Your task to perform on an android device: turn on the 12-hour format for clock Image 0: 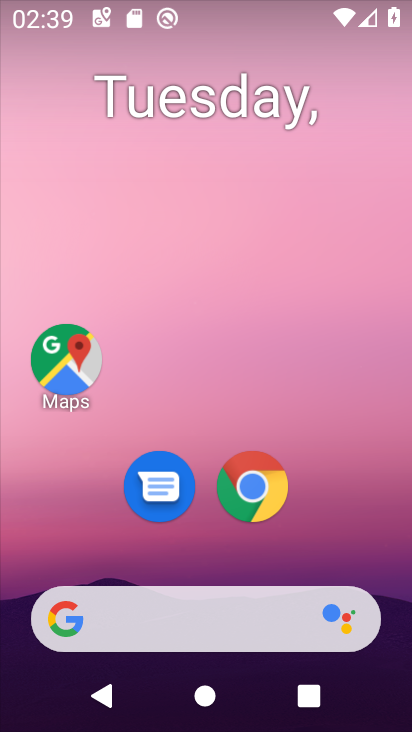
Step 0: drag from (215, 557) to (231, 33)
Your task to perform on an android device: turn on the 12-hour format for clock Image 1: 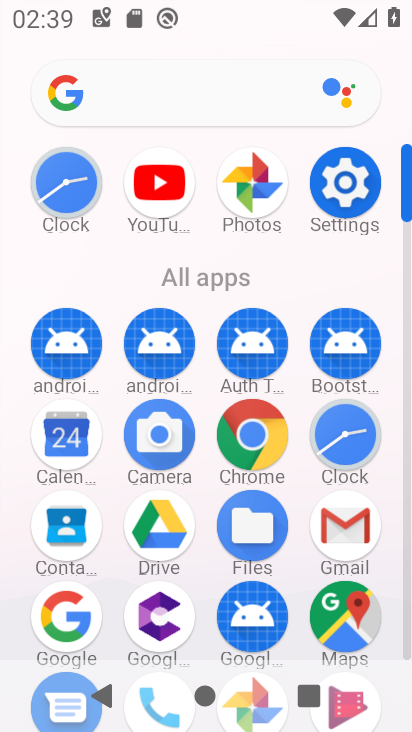
Step 1: click (343, 427)
Your task to perform on an android device: turn on the 12-hour format for clock Image 2: 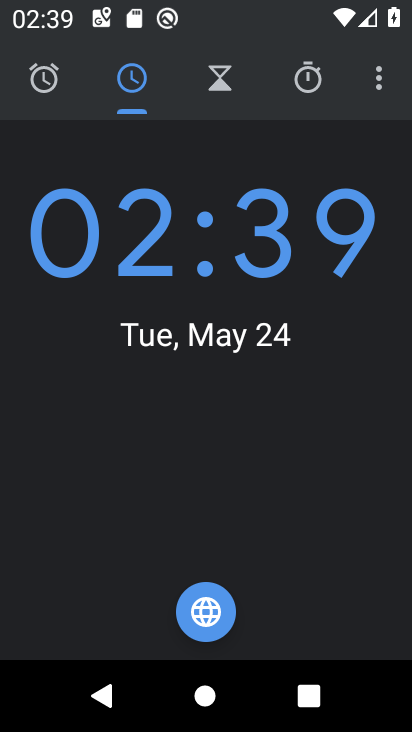
Step 2: click (380, 72)
Your task to perform on an android device: turn on the 12-hour format for clock Image 3: 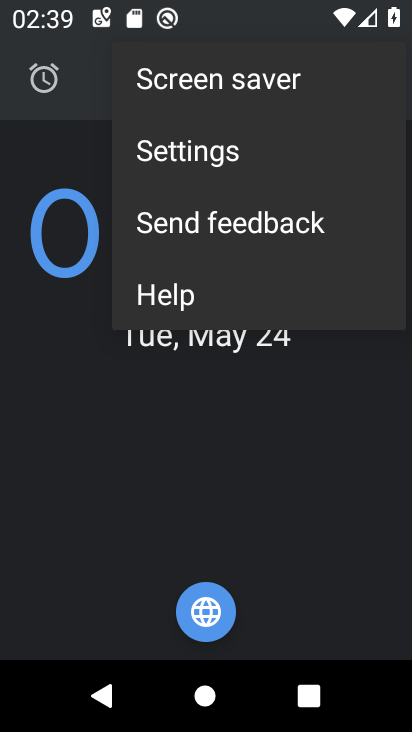
Step 3: click (256, 147)
Your task to perform on an android device: turn on the 12-hour format for clock Image 4: 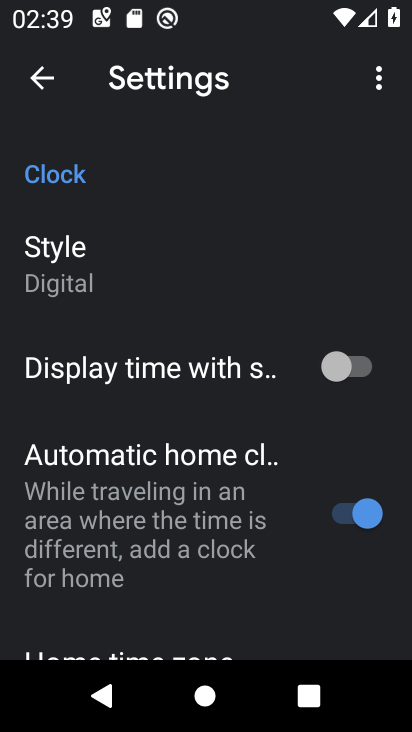
Step 4: drag from (214, 621) to (246, 117)
Your task to perform on an android device: turn on the 12-hour format for clock Image 5: 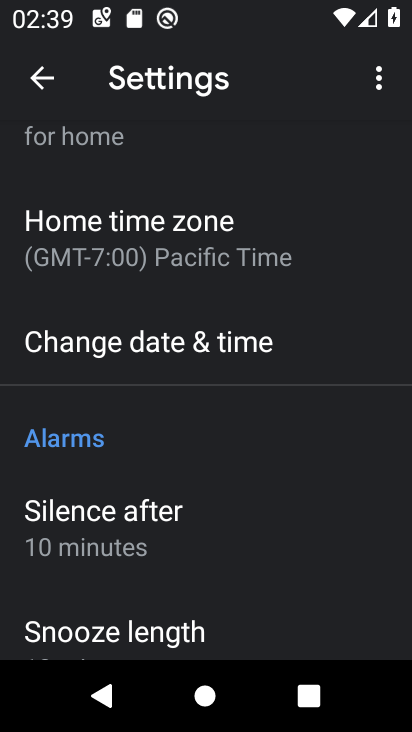
Step 5: click (250, 355)
Your task to perform on an android device: turn on the 12-hour format for clock Image 6: 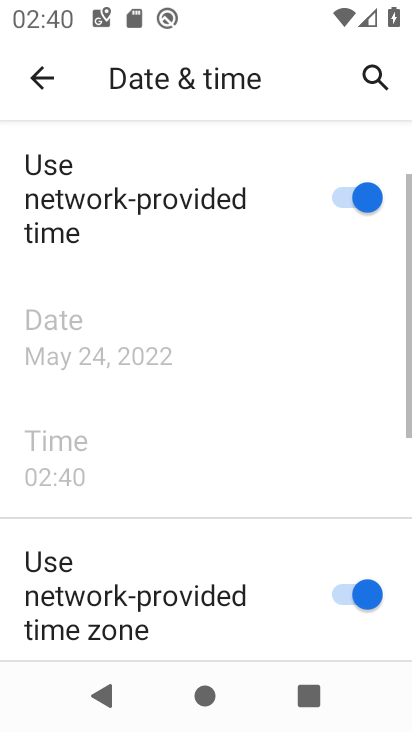
Step 6: drag from (309, 575) to (340, 138)
Your task to perform on an android device: turn on the 12-hour format for clock Image 7: 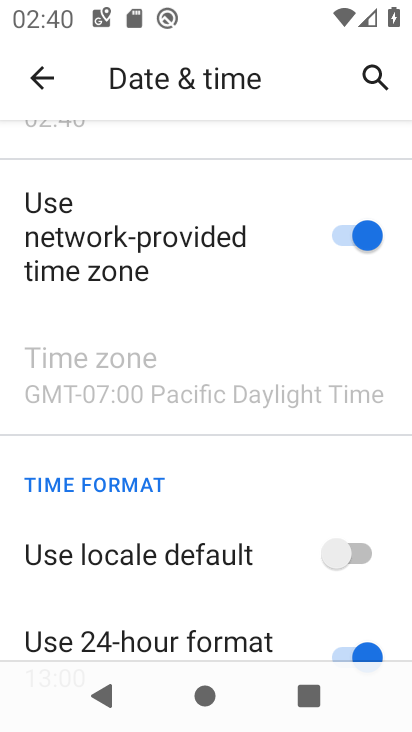
Step 7: click (354, 545)
Your task to perform on an android device: turn on the 12-hour format for clock Image 8: 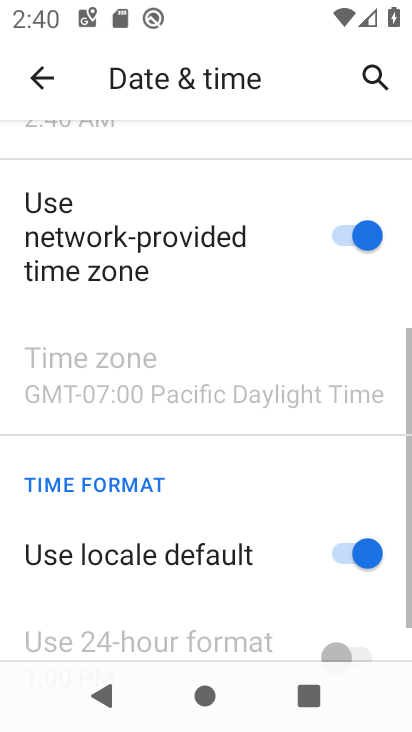
Step 8: task complete